Your task to perform on an android device: show emergency info Image 0: 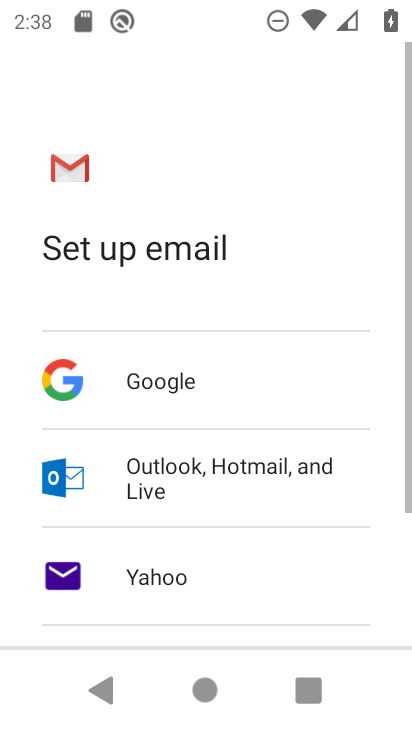
Step 0: press home button
Your task to perform on an android device: show emergency info Image 1: 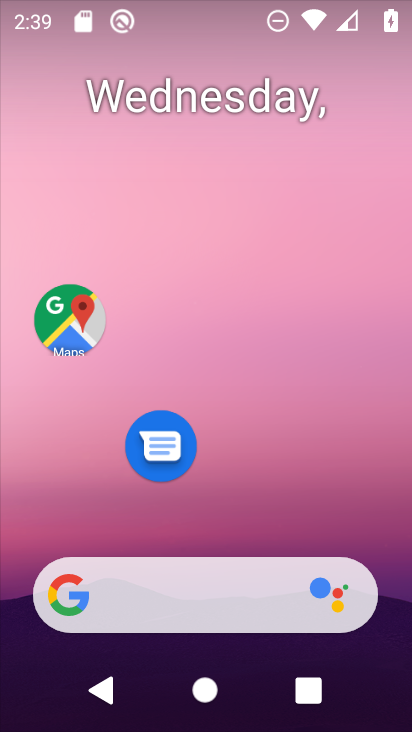
Step 1: drag from (338, 468) to (253, 15)
Your task to perform on an android device: show emergency info Image 2: 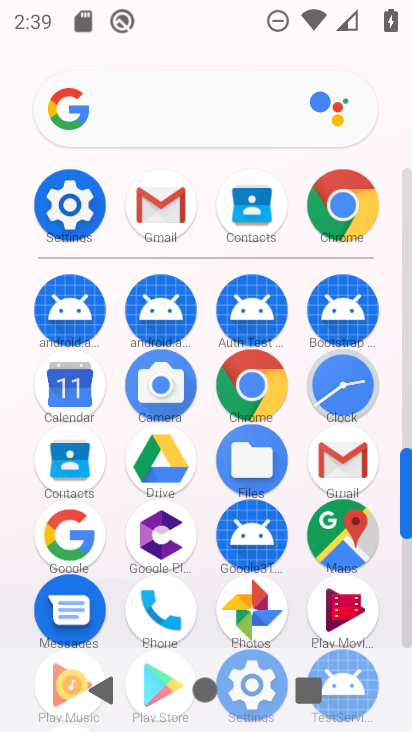
Step 2: click (64, 212)
Your task to perform on an android device: show emergency info Image 3: 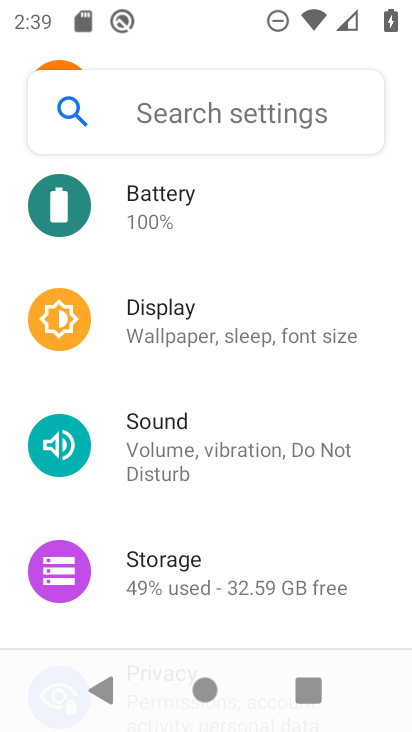
Step 3: drag from (210, 484) to (289, 711)
Your task to perform on an android device: show emergency info Image 4: 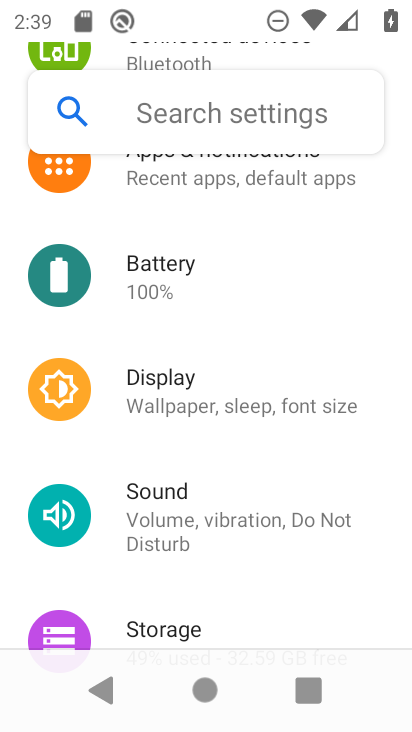
Step 4: drag from (239, 261) to (262, 23)
Your task to perform on an android device: show emergency info Image 5: 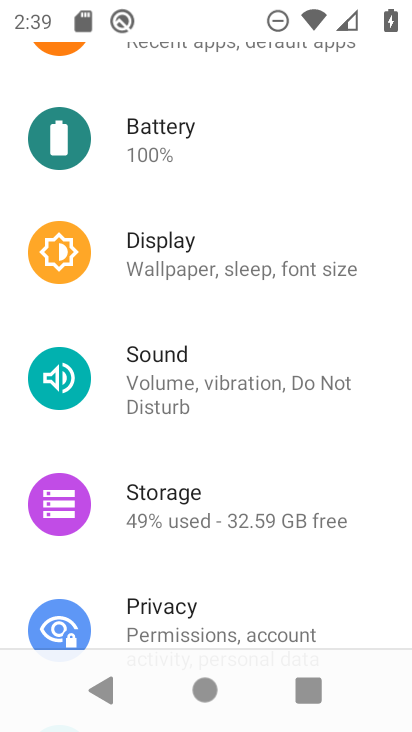
Step 5: drag from (191, 406) to (156, 114)
Your task to perform on an android device: show emergency info Image 6: 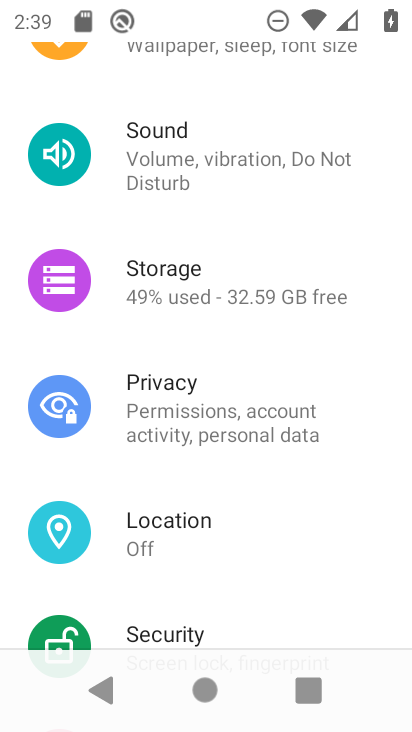
Step 6: drag from (144, 558) to (131, 286)
Your task to perform on an android device: show emergency info Image 7: 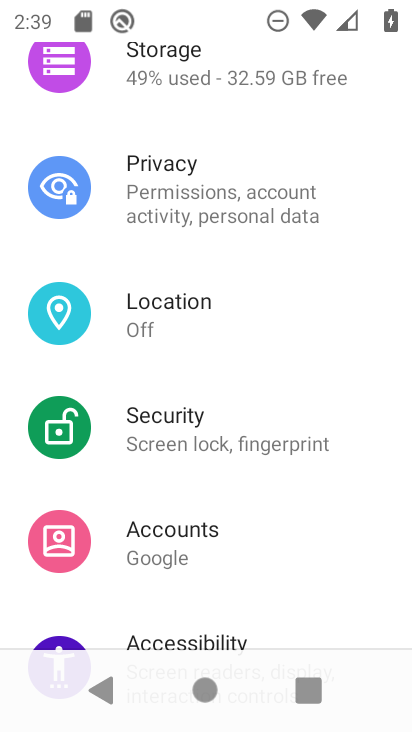
Step 7: drag from (186, 543) to (174, 196)
Your task to perform on an android device: show emergency info Image 8: 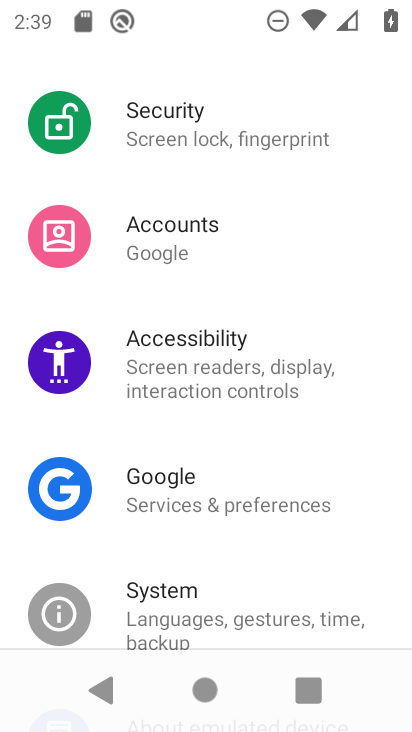
Step 8: drag from (172, 530) to (156, 351)
Your task to perform on an android device: show emergency info Image 9: 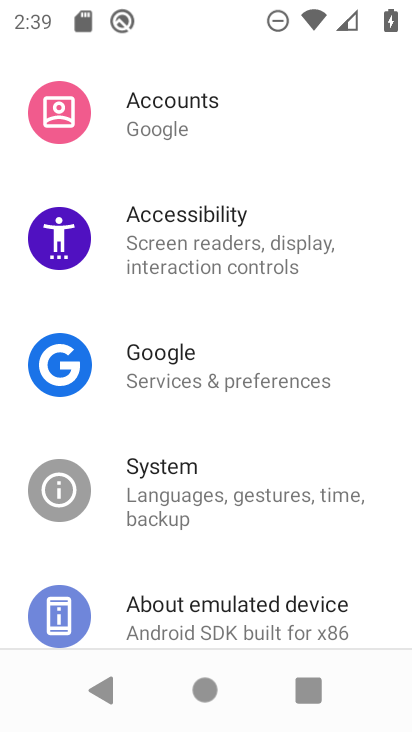
Step 9: click (194, 639)
Your task to perform on an android device: show emergency info Image 10: 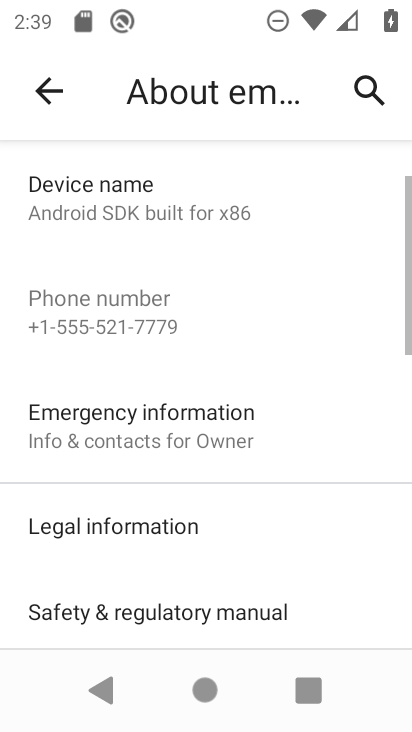
Step 10: click (219, 466)
Your task to perform on an android device: show emergency info Image 11: 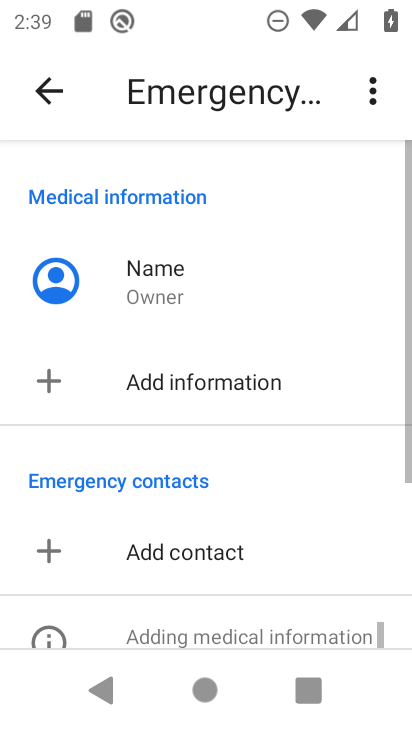
Step 11: task complete